Your task to perform on an android device: toggle notification dots Image 0: 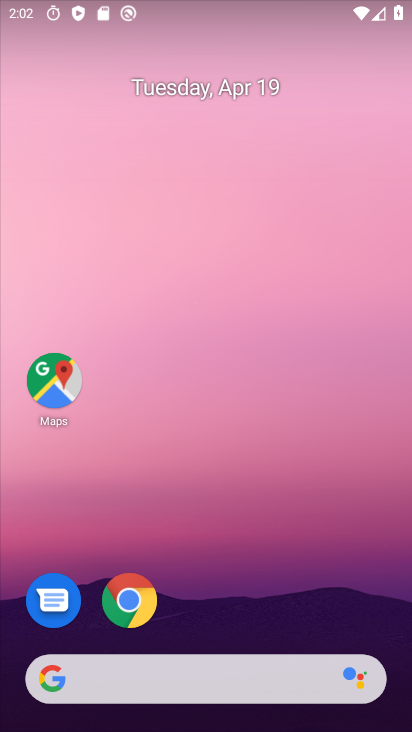
Step 0: drag from (271, 712) to (404, 205)
Your task to perform on an android device: toggle notification dots Image 1: 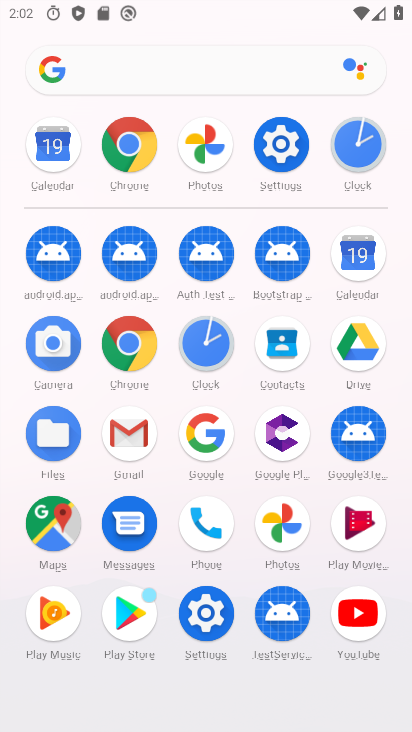
Step 1: click (275, 184)
Your task to perform on an android device: toggle notification dots Image 2: 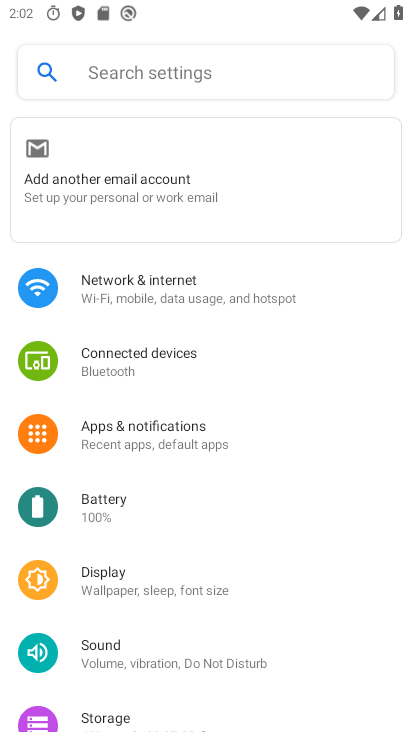
Step 2: click (207, 85)
Your task to perform on an android device: toggle notification dots Image 3: 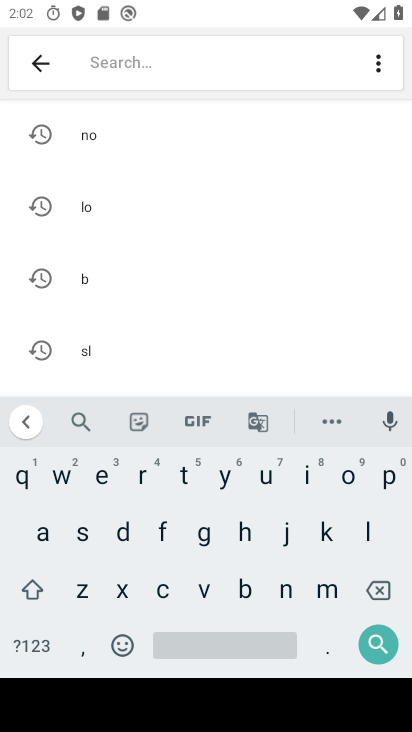
Step 3: click (127, 535)
Your task to perform on an android device: toggle notification dots Image 4: 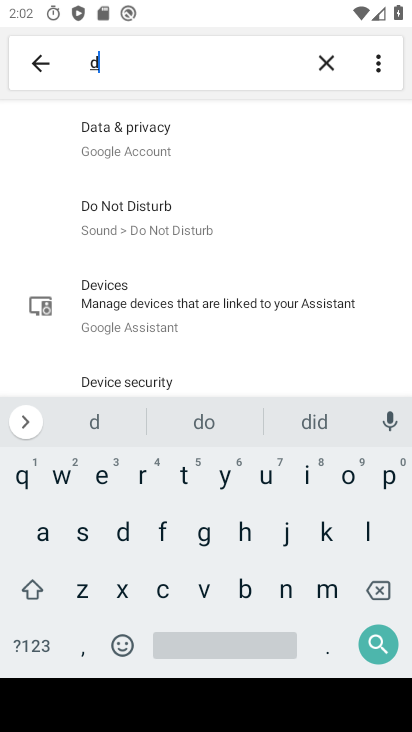
Step 4: click (346, 482)
Your task to perform on an android device: toggle notification dots Image 5: 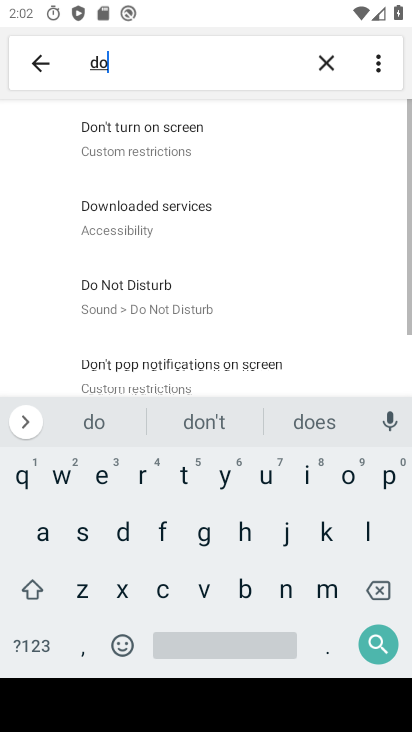
Step 5: click (183, 490)
Your task to perform on an android device: toggle notification dots Image 6: 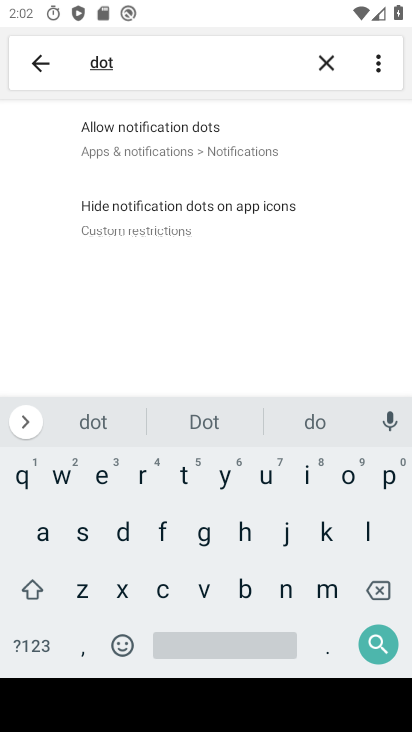
Step 6: click (238, 163)
Your task to perform on an android device: toggle notification dots Image 7: 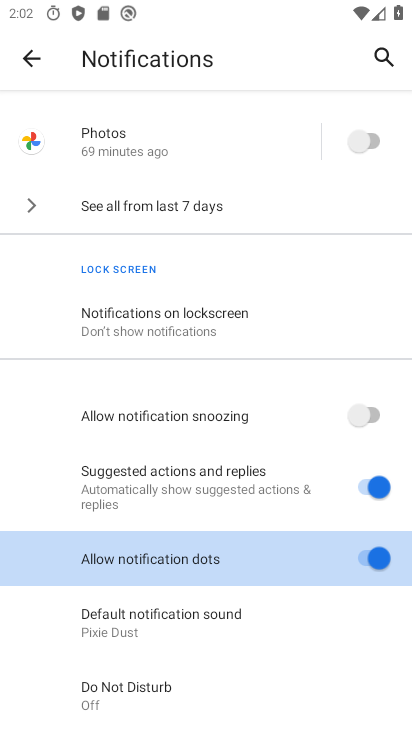
Step 7: task complete